Your task to perform on an android device: Show me the alarms in the clock app Image 0: 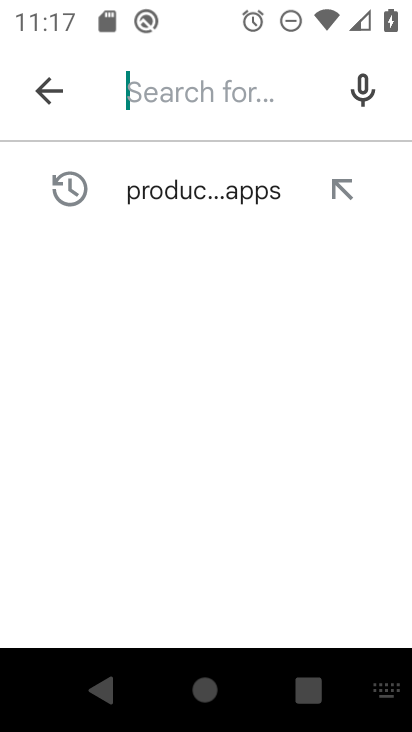
Step 0: press home button
Your task to perform on an android device: Show me the alarms in the clock app Image 1: 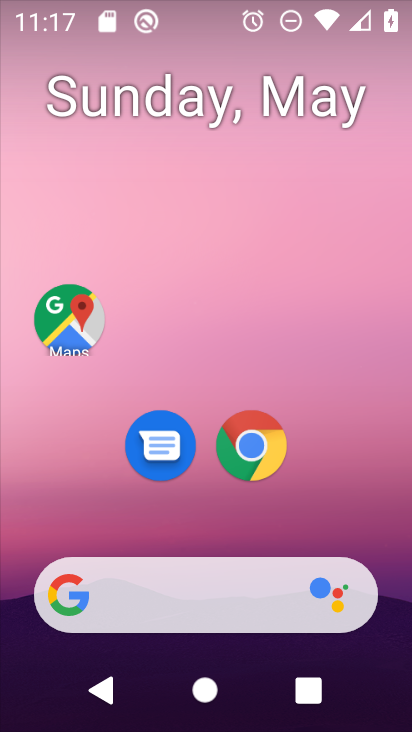
Step 1: drag from (235, 553) to (228, 228)
Your task to perform on an android device: Show me the alarms in the clock app Image 2: 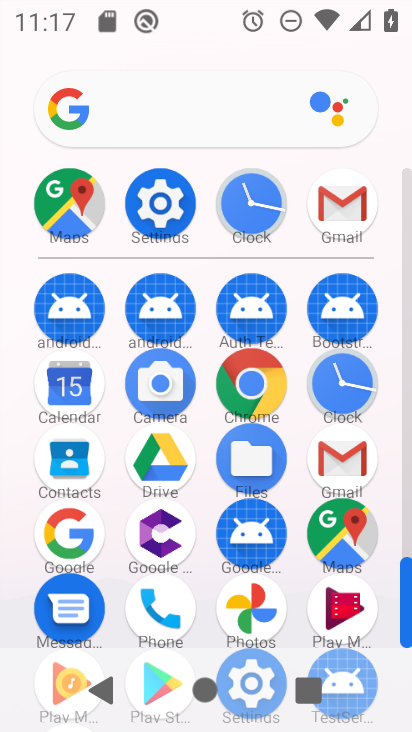
Step 2: click (356, 395)
Your task to perform on an android device: Show me the alarms in the clock app Image 3: 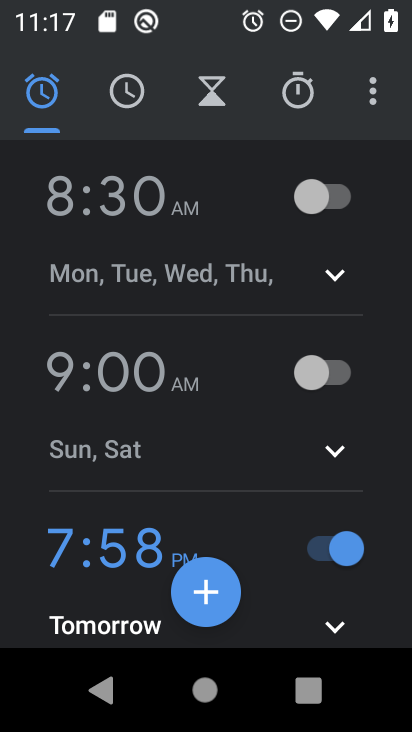
Step 3: click (379, 100)
Your task to perform on an android device: Show me the alarms in the clock app Image 4: 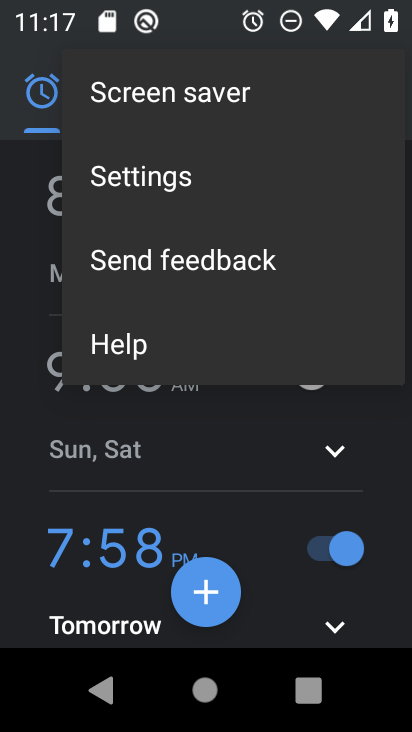
Step 4: click (39, 173)
Your task to perform on an android device: Show me the alarms in the clock app Image 5: 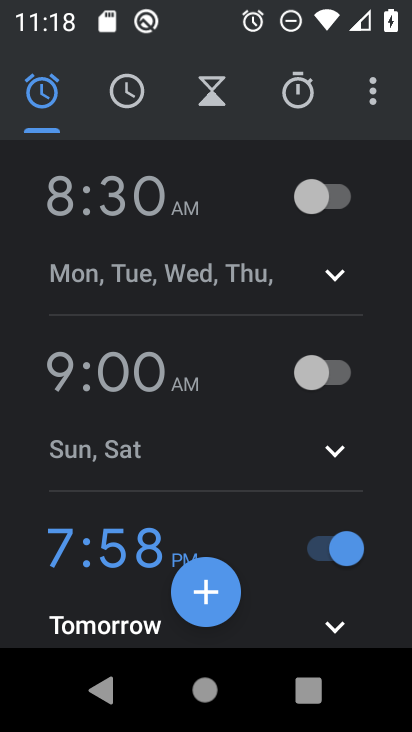
Step 5: task complete